Your task to perform on an android device: toggle pop-ups in chrome Image 0: 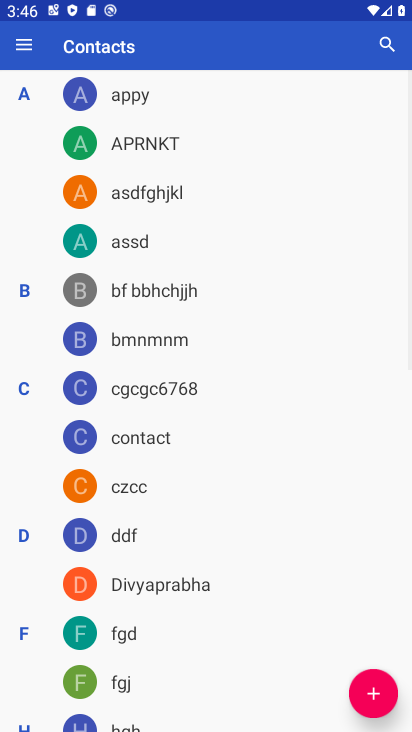
Step 0: press home button
Your task to perform on an android device: toggle pop-ups in chrome Image 1: 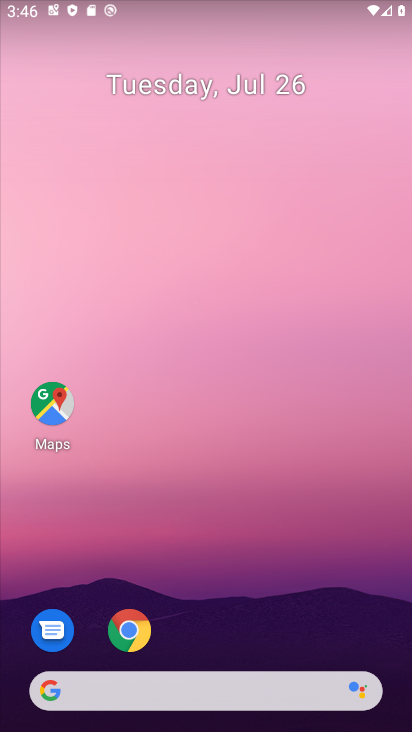
Step 1: click (140, 634)
Your task to perform on an android device: toggle pop-ups in chrome Image 2: 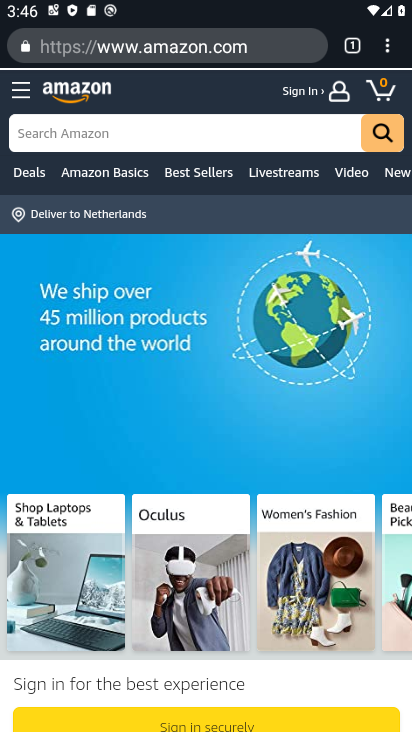
Step 2: click (396, 37)
Your task to perform on an android device: toggle pop-ups in chrome Image 3: 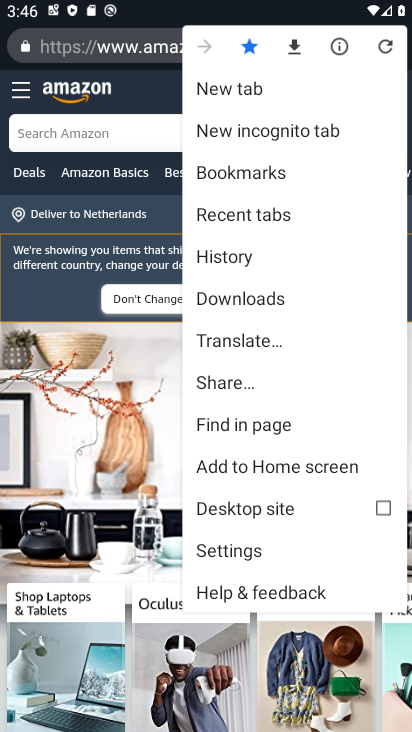
Step 3: click (258, 560)
Your task to perform on an android device: toggle pop-ups in chrome Image 4: 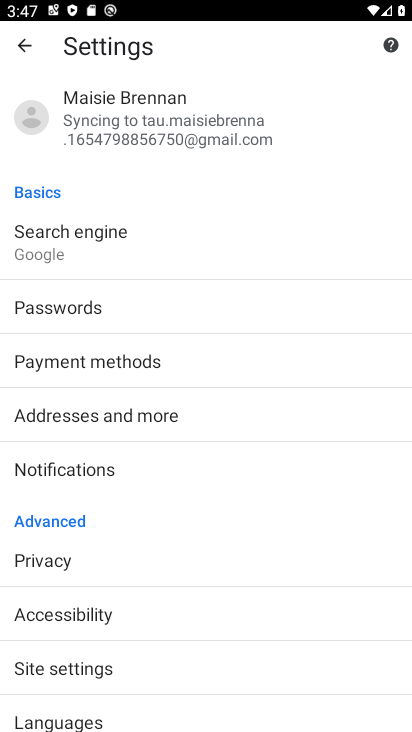
Step 4: click (187, 662)
Your task to perform on an android device: toggle pop-ups in chrome Image 5: 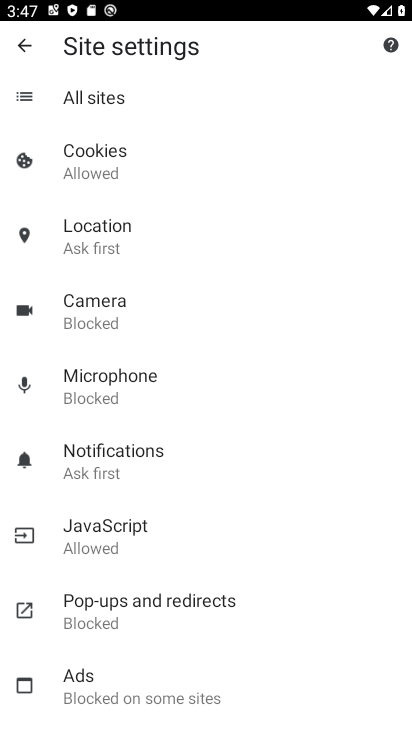
Step 5: click (165, 609)
Your task to perform on an android device: toggle pop-ups in chrome Image 6: 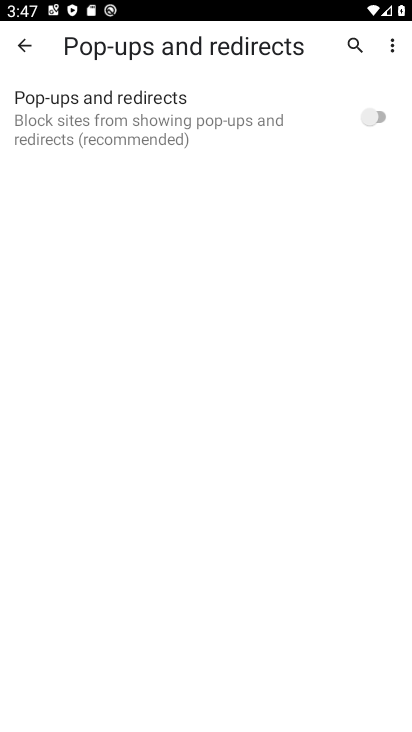
Step 6: click (385, 110)
Your task to perform on an android device: toggle pop-ups in chrome Image 7: 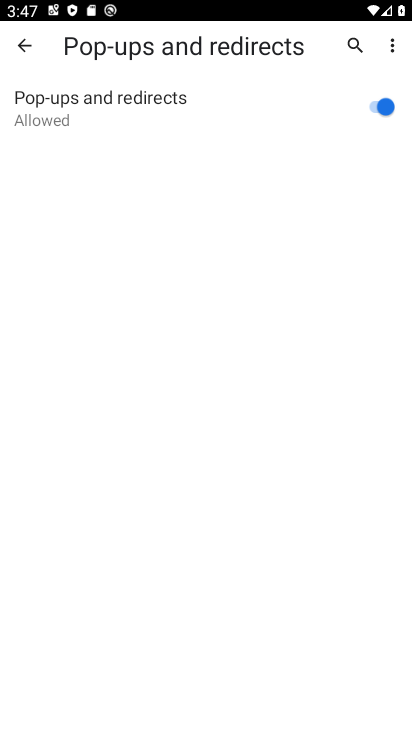
Step 7: task complete